Your task to perform on an android device: What's the weather like in Mexico City? Image 0: 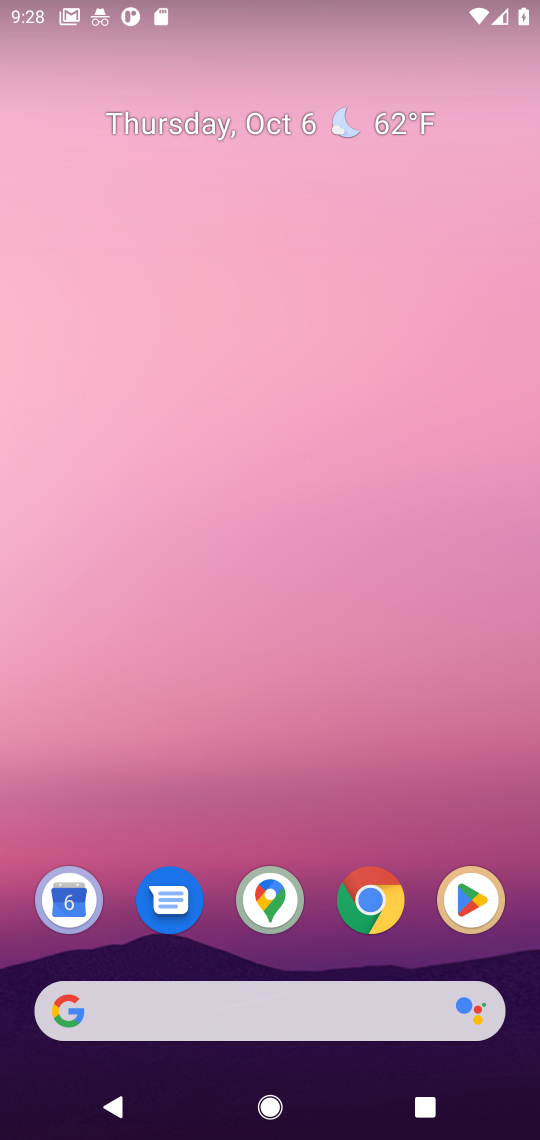
Step 0: click (358, 1017)
Your task to perform on an android device: What's the weather like in Mexico City? Image 1: 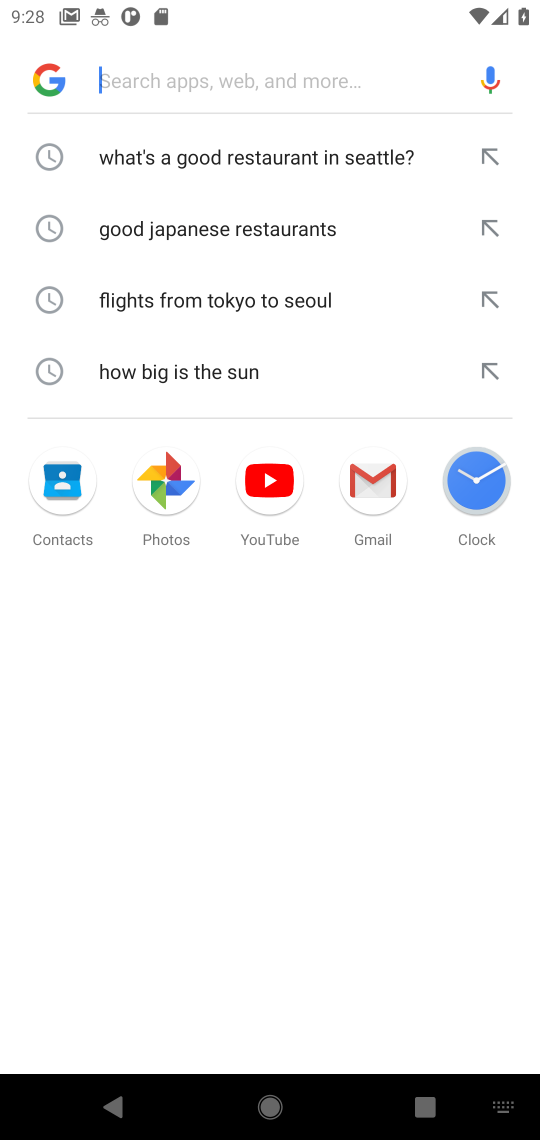
Step 1: type "What's the weather like in Mexico City?"
Your task to perform on an android device: What's the weather like in Mexico City? Image 2: 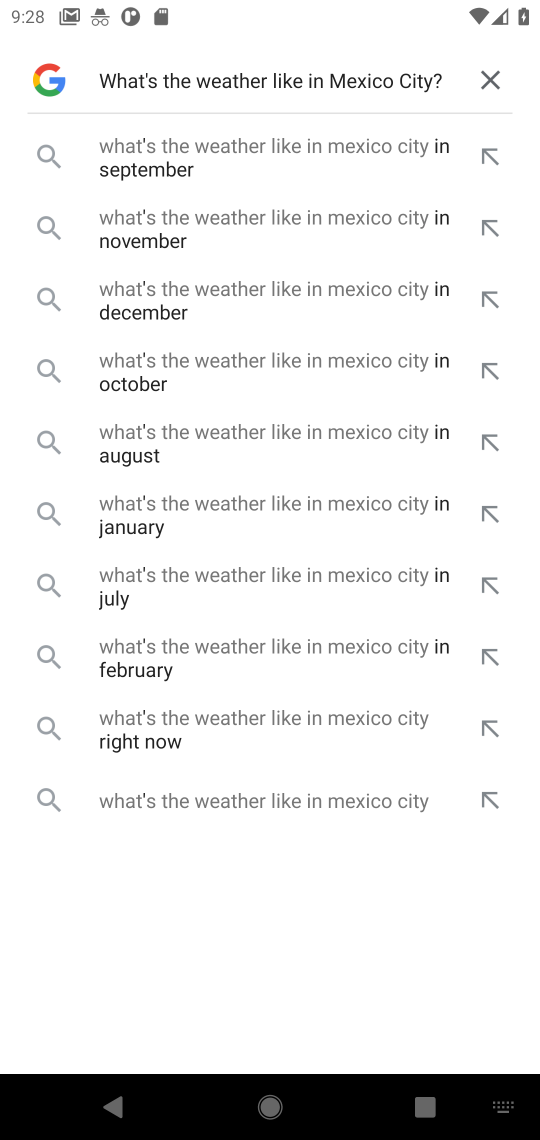
Step 2: press enter
Your task to perform on an android device: What's the weather like in Mexico City? Image 3: 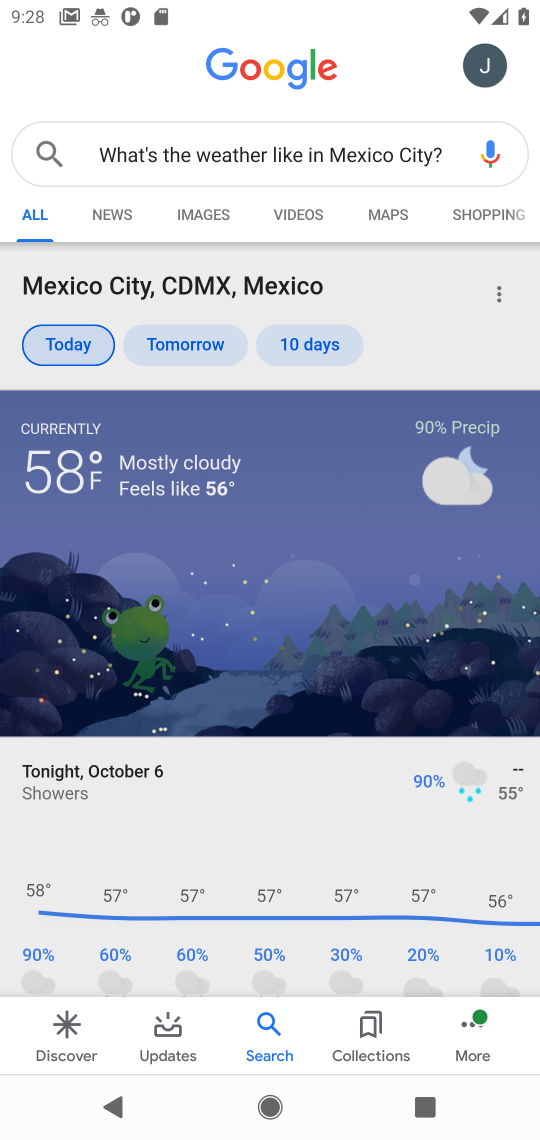
Step 3: task complete